Your task to perform on an android device: Set the phone to "Do not disturb". Image 0: 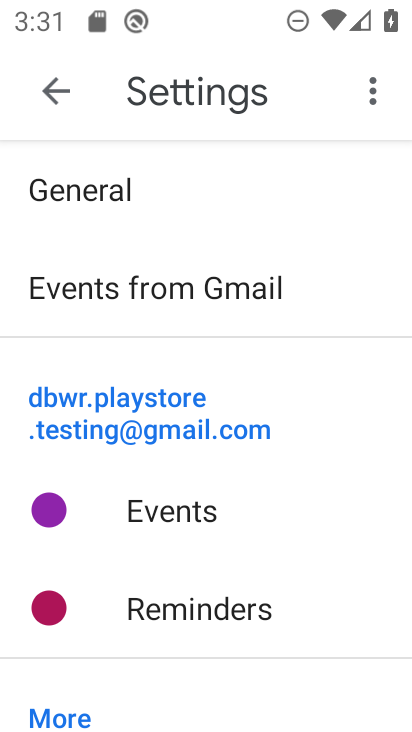
Step 0: drag from (185, 25) to (148, 527)
Your task to perform on an android device: Set the phone to "Do not disturb". Image 1: 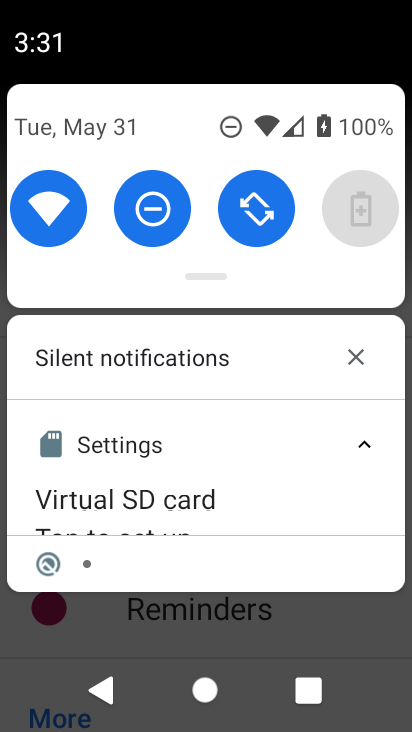
Step 1: click (168, 200)
Your task to perform on an android device: Set the phone to "Do not disturb". Image 2: 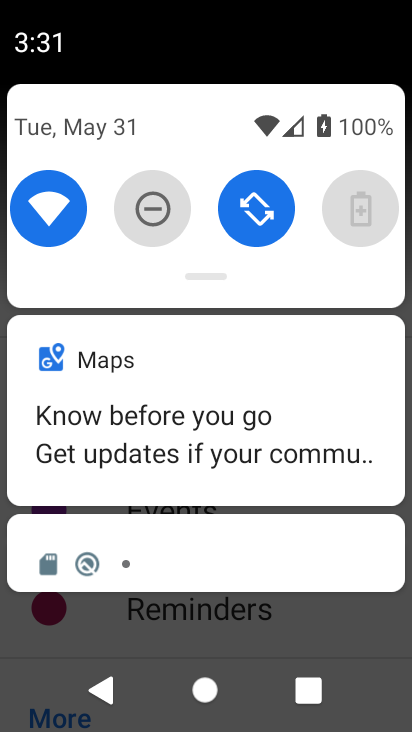
Step 2: click (168, 200)
Your task to perform on an android device: Set the phone to "Do not disturb". Image 3: 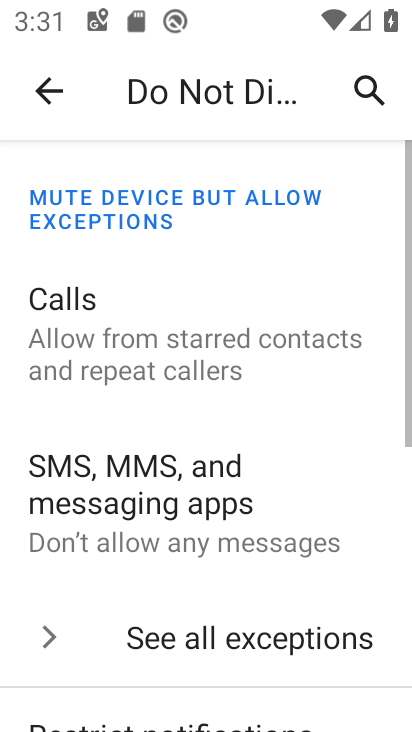
Step 3: drag from (242, 686) to (345, 120)
Your task to perform on an android device: Set the phone to "Do not disturb". Image 4: 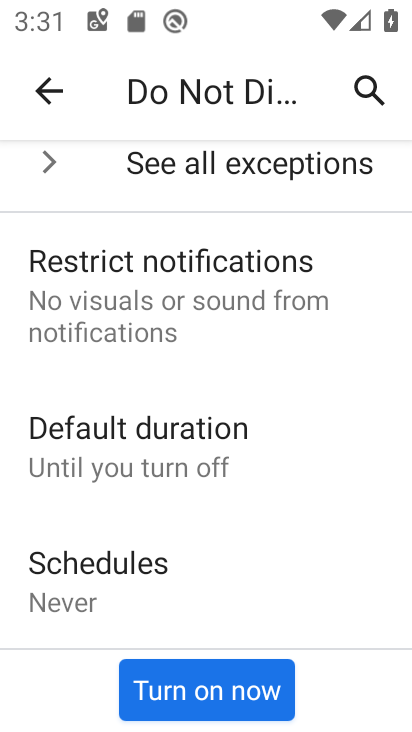
Step 4: click (155, 693)
Your task to perform on an android device: Set the phone to "Do not disturb". Image 5: 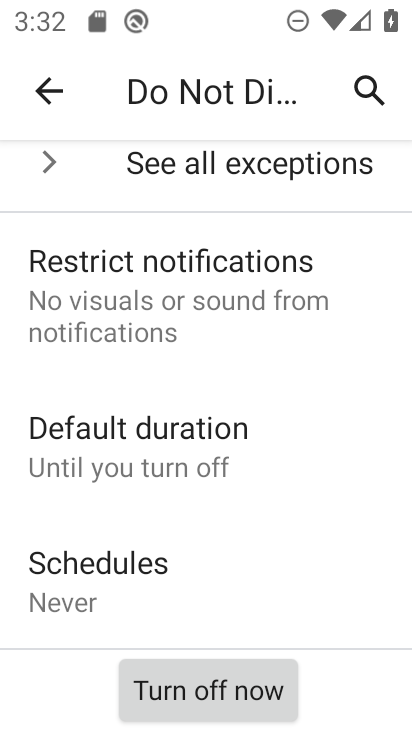
Step 5: task complete